Your task to perform on an android device: Open sound settings Image 0: 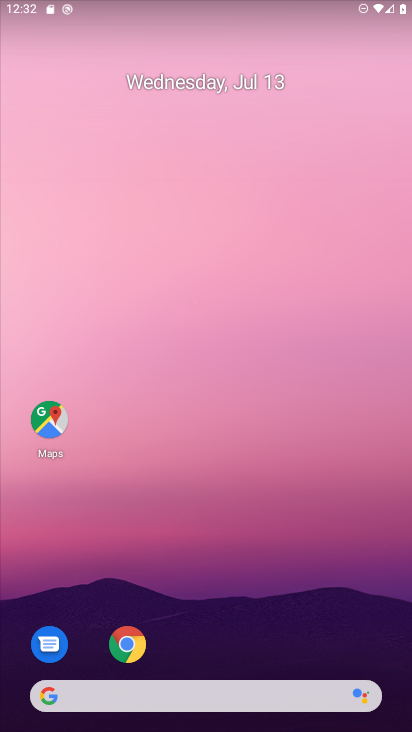
Step 0: drag from (196, 726) to (247, 125)
Your task to perform on an android device: Open sound settings Image 1: 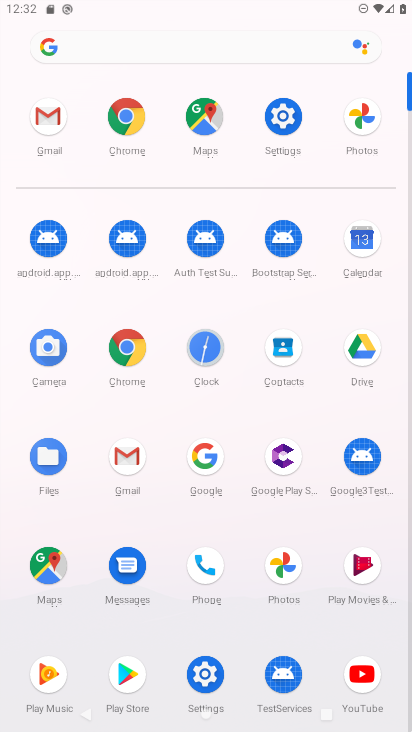
Step 1: click (274, 106)
Your task to perform on an android device: Open sound settings Image 2: 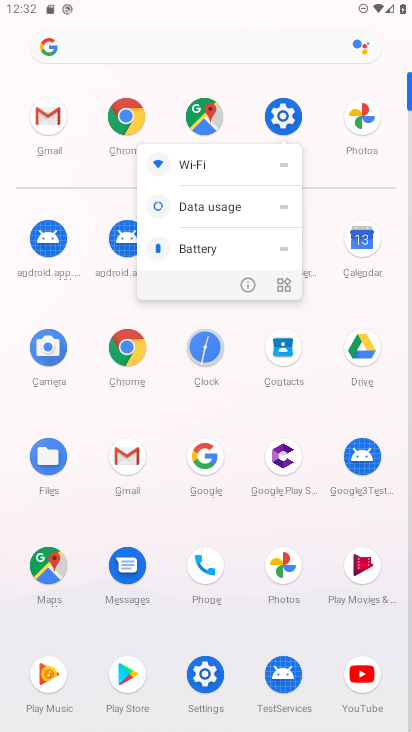
Step 2: click (286, 119)
Your task to perform on an android device: Open sound settings Image 3: 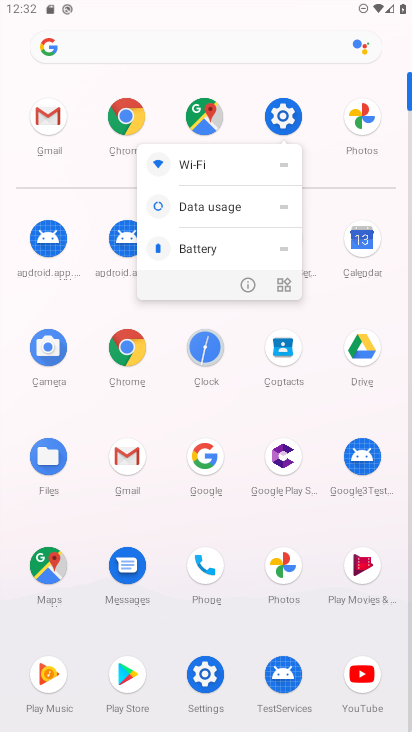
Step 3: click (286, 119)
Your task to perform on an android device: Open sound settings Image 4: 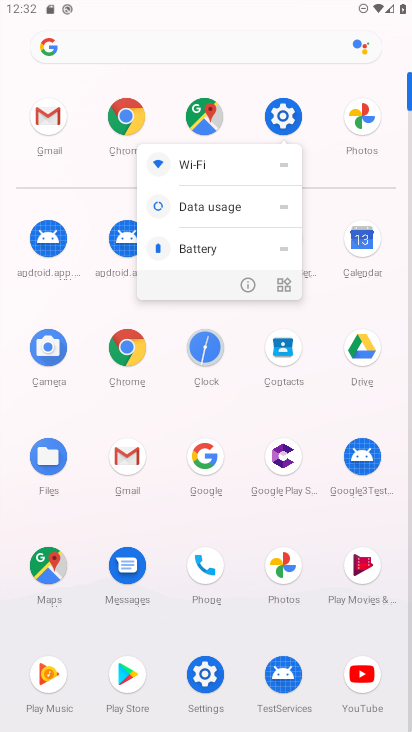
Step 4: click (286, 119)
Your task to perform on an android device: Open sound settings Image 5: 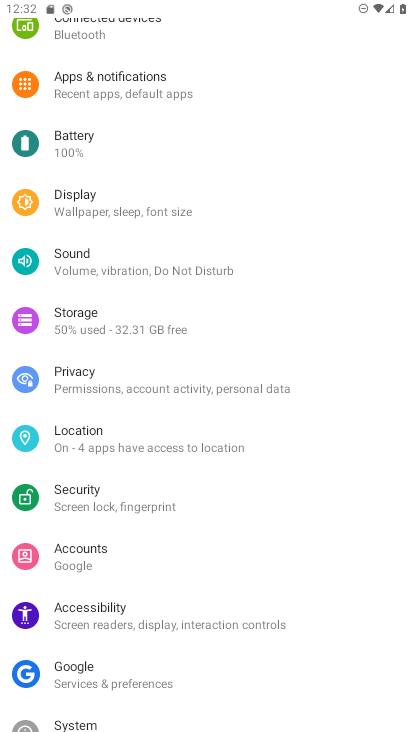
Step 5: click (124, 259)
Your task to perform on an android device: Open sound settings Image 6: 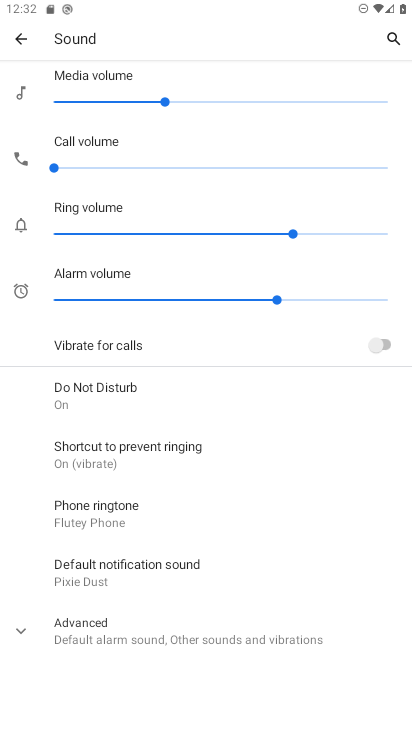
Step 6: task complete